Your task to perform on an android device: turn on priority inbox in the gmail app Image 0: 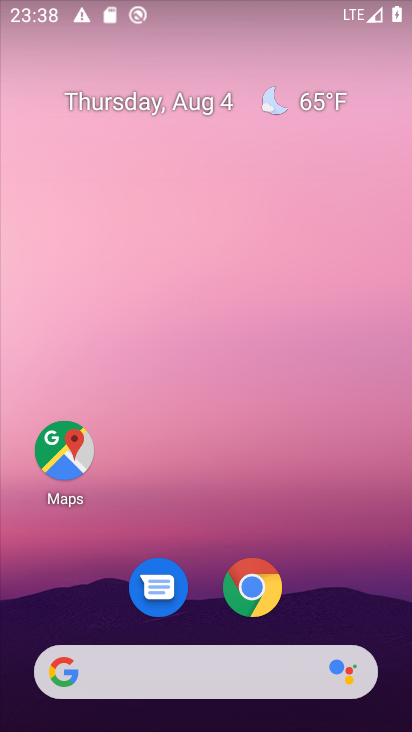
Step 0: drag from (217, 605) to (182, 180)
Your task to perform on an android device: turn on priority inbox in the gmail app Image 1: 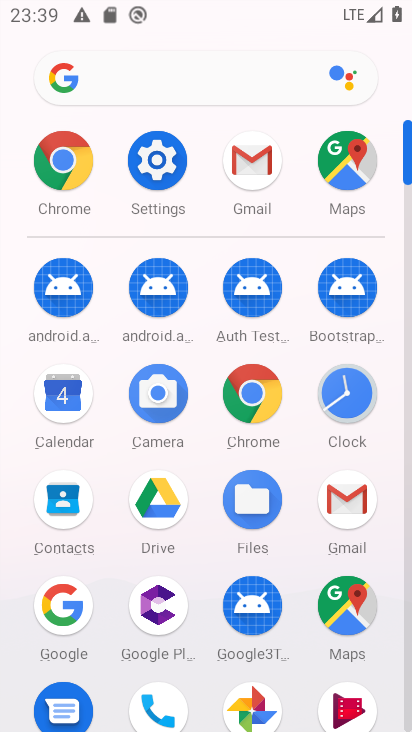
Step 1: click (336, 499)
Your task to perform on an android device: turn on priority inbox in the gmail app Image 2: 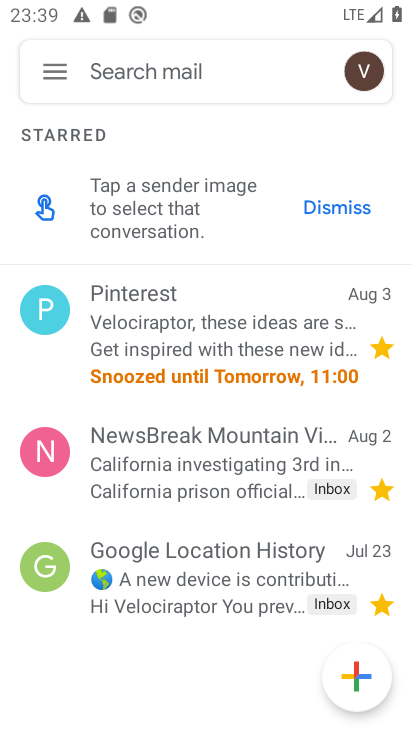
Step 2: click (44, 67)
Your task to perform on an android device: turn on priority inbox in the gmail app Image 3: 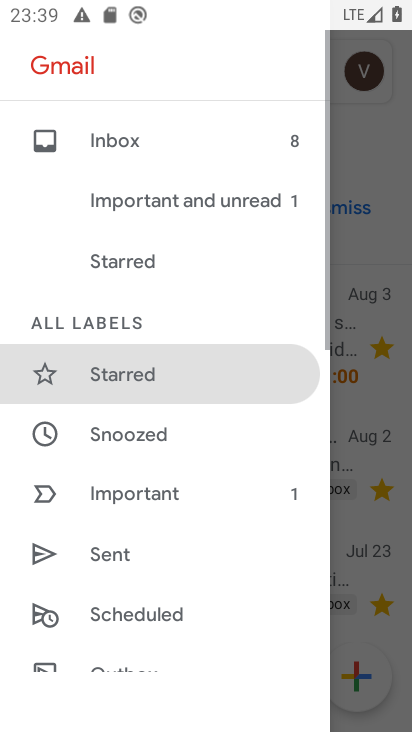
Step 3: drag from (74, 589) to (135, 161)
Your task to perform on an android device: turn on priority inbox in the gmail app Image 4: 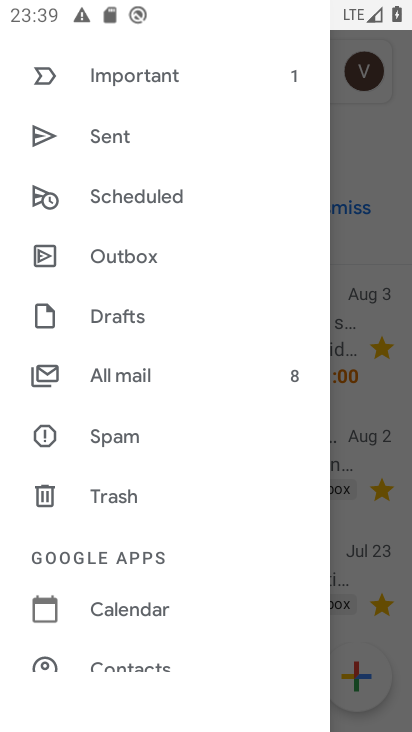
Step 4: drag from (126, 630) to (152, 184)
Your task to perform on an android device: turn on priority inbox in the gmail app Image 5: 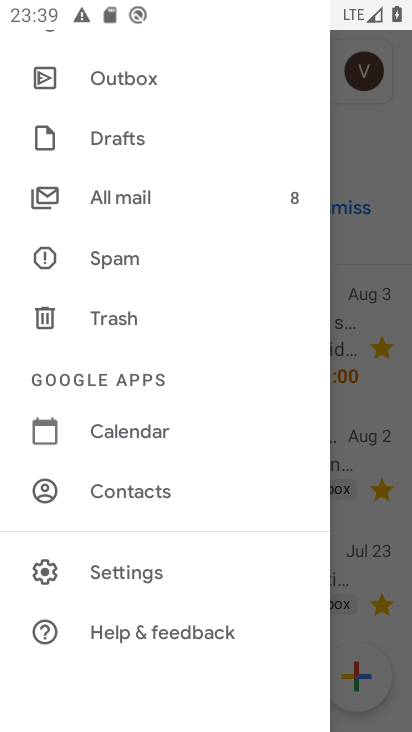
Step 5: click (110, 569)
Your task to perform on an android device: turn on priority inbox in the gmail app Image 6: 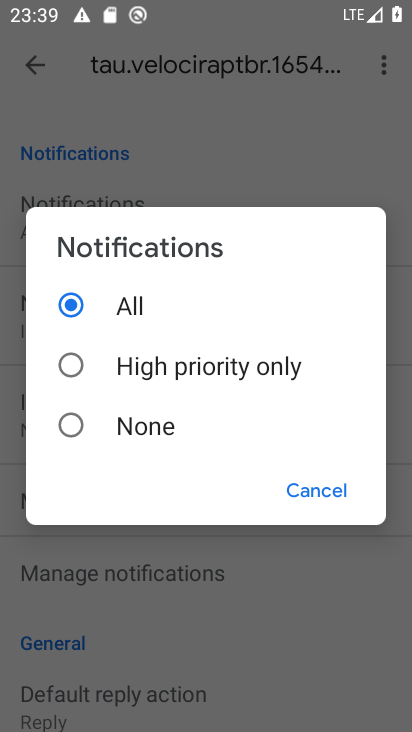
Step 6: click (298, 483)
Your task to perform on an android device: turn on priority inbox in the gmail app Image 7: 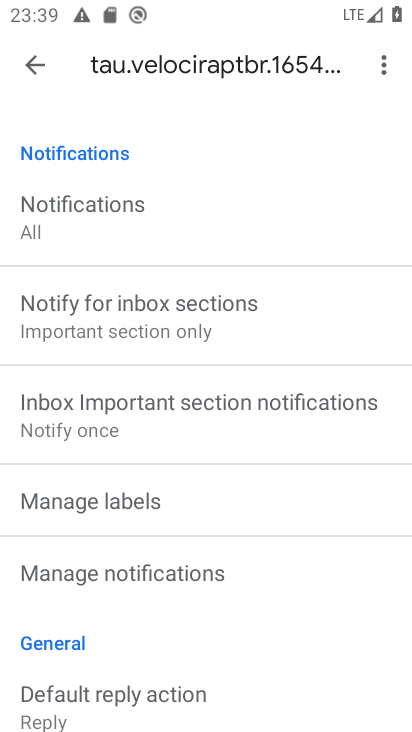
Step 7: drag from (88, 224) to (100, 565)
Your task to perform on an android device: turn on priority inbox in the gmail app Image 8: 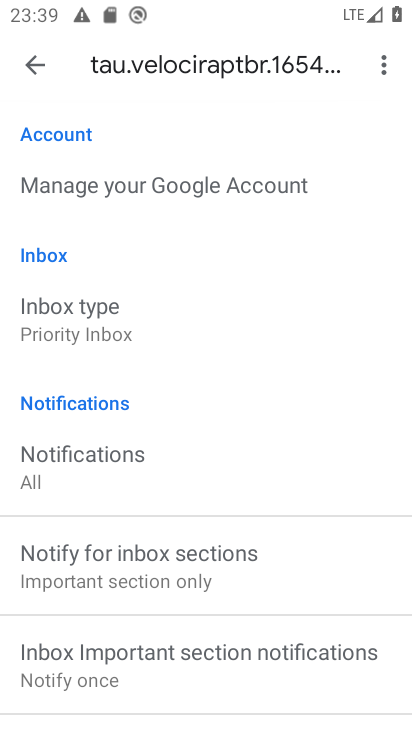
Step 8: click (94, 319)
Your task to perform on an android device: turn on priority inbox in the gmail app Image 9: 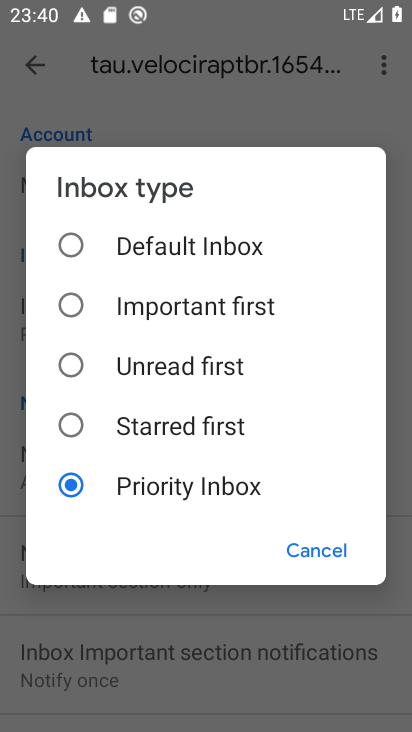
Step 9: task complete